Your task to perform on an android device: Do I have any events today? Image 0: 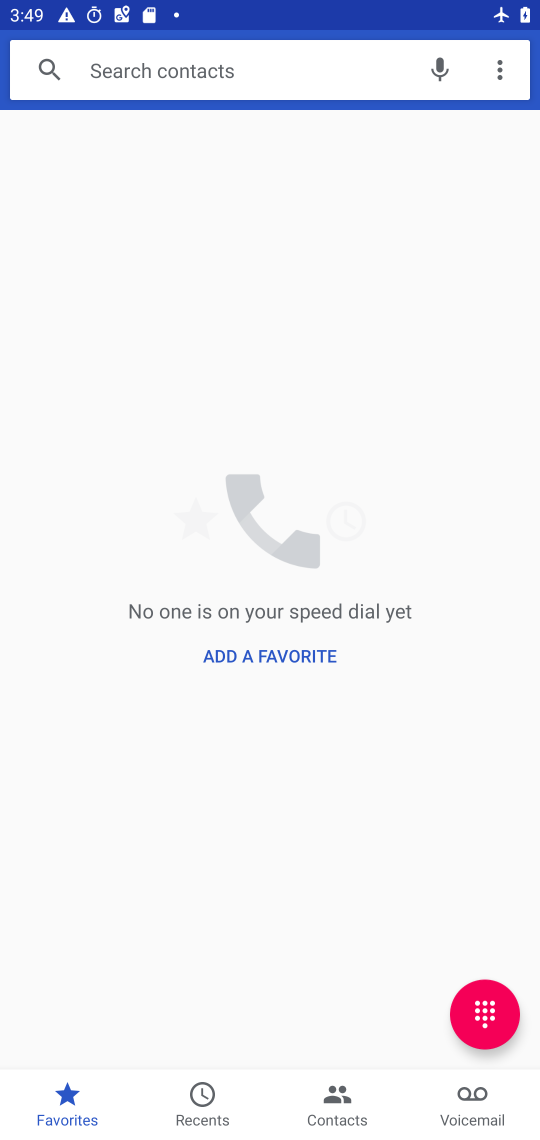
Step 0: press home button
Your task to perform on an android device: Do I have any events today? Image 1: 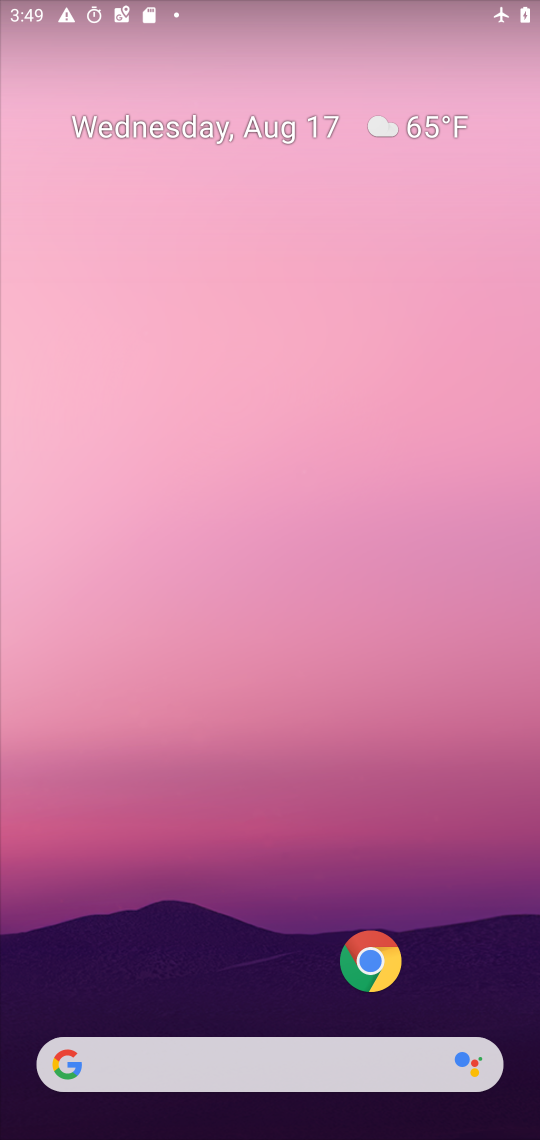
Step 1: drag from (281, 932) to (337, 204)
Your task to perform on an android device: Do I have any events today? Image 2: 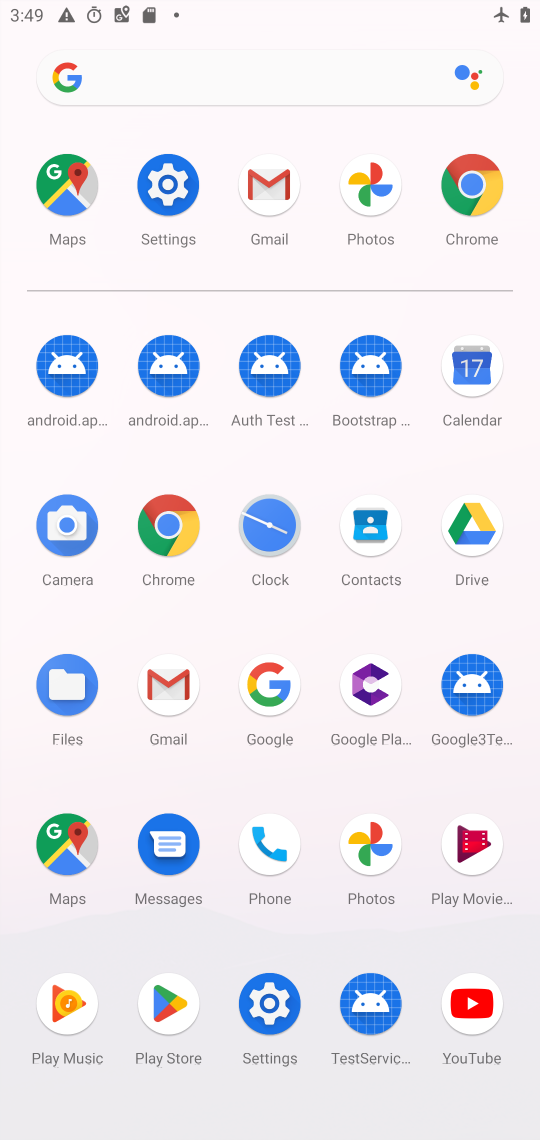
Step 2: click (472, 408)
Your task to perform on an android device: Do I have any events today? Image 3: 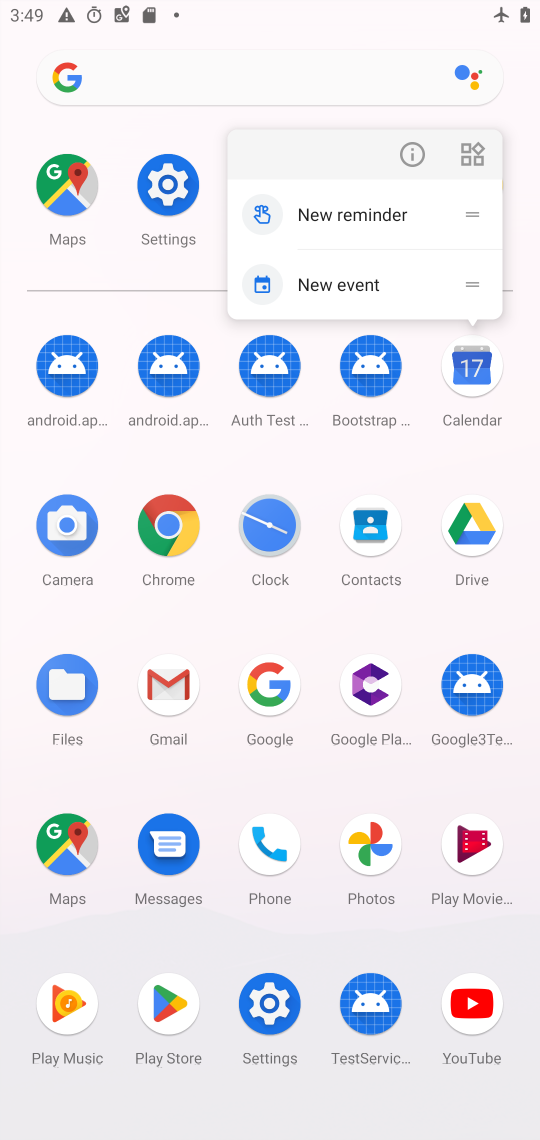
Step 3: click (486, 403)
Your task to perform on an android device: Do I have any events today? Image 4: 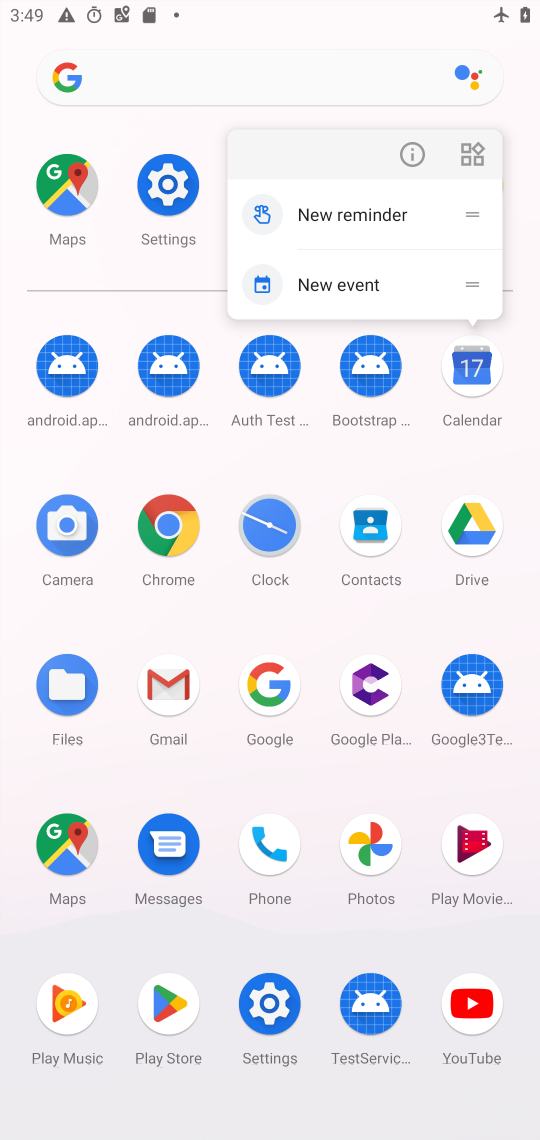
Step 4: click (461, 390)
Your task to perform on an android device: Do I have any events today? Image 5: 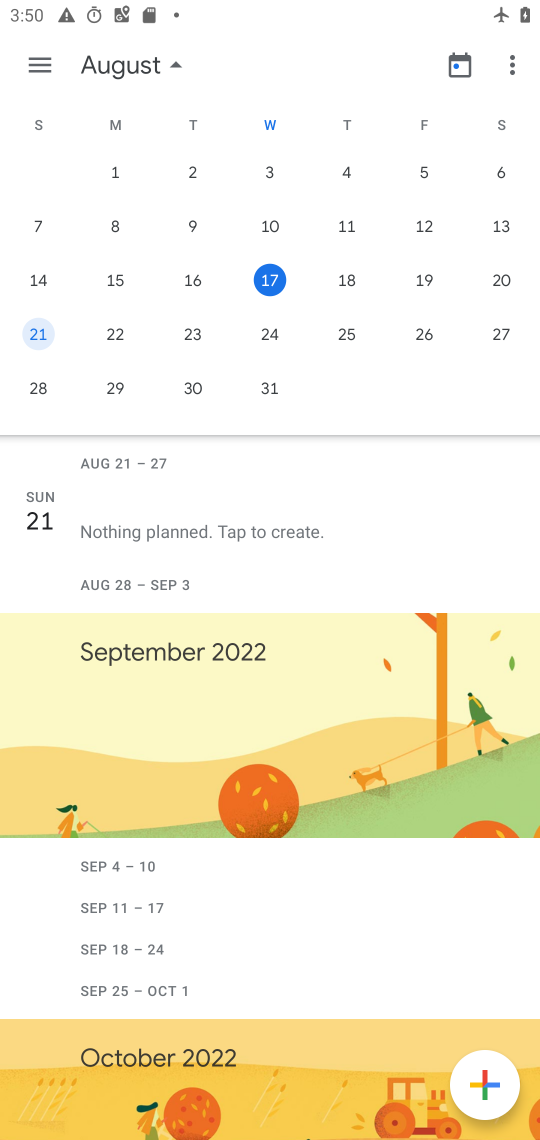
Step 5: click (266, 281)
Your task to perform on an android device: Do I have any events today? Image 6: 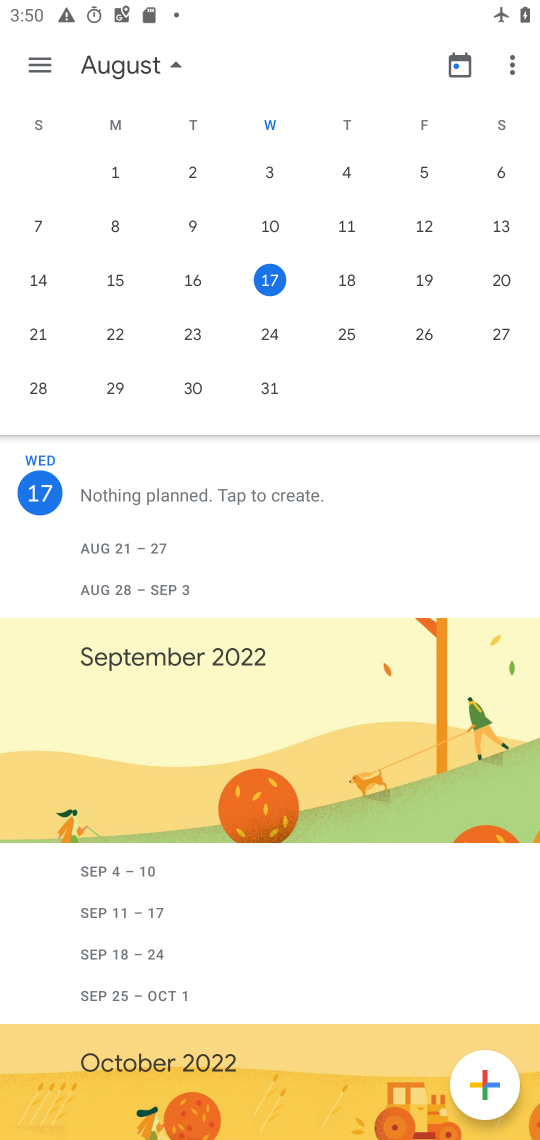
Step 6: task complete